Your task to perform on an android device: turn on translation in the chrome app Image 0: 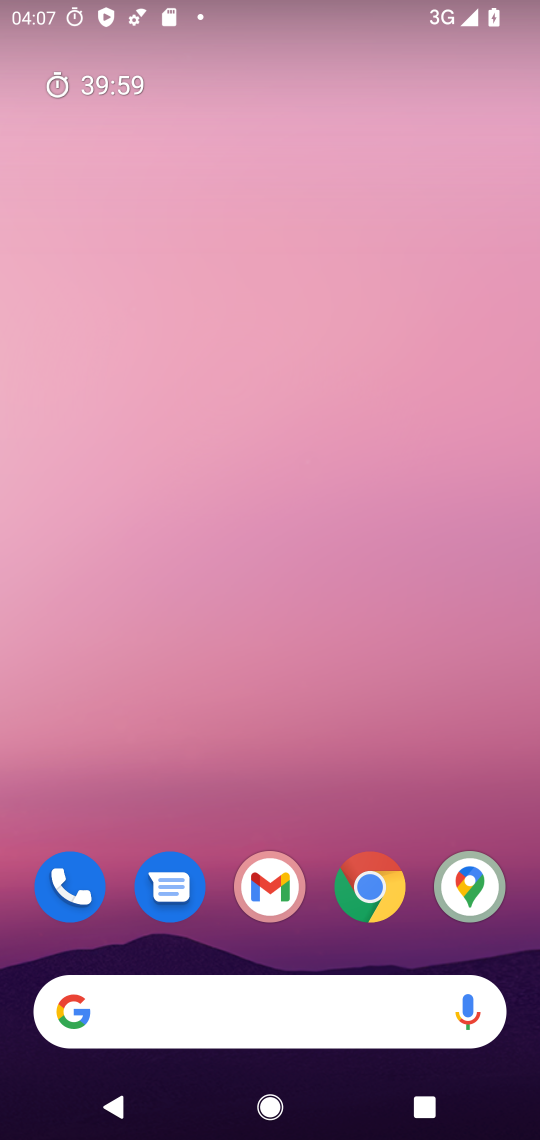
Step 0: press home button
Your task to perform on an android device: turn on translation in the chrome app Image 1: 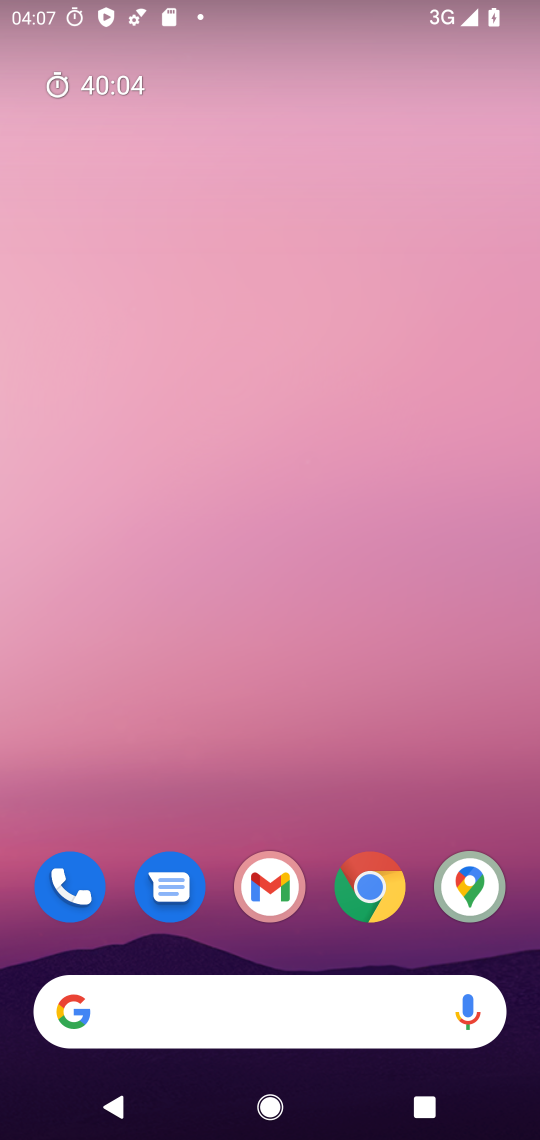
Step 1: drag from (426, 758) to (415, 316)
Your task to perform on an android device: turn on translation in the chrome app Image 2: 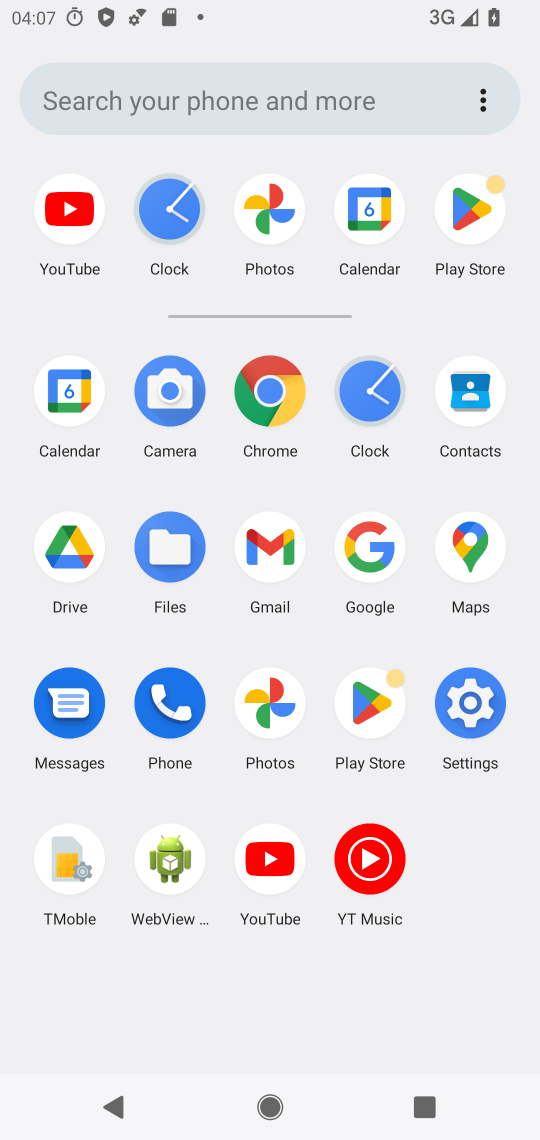
Step 2: click (272, 410)
Your task to perform on an android device: turn on translation in the chrome app Image 3: 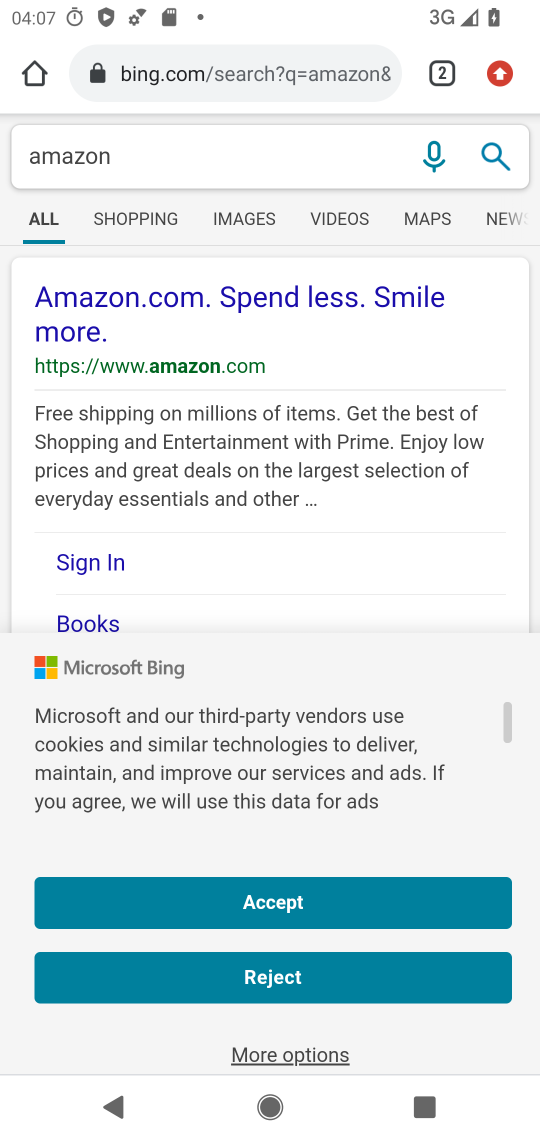
Step 3: click (499, 69)
Your task to perform on an android device: turn on translation in the chrome app Image 4: 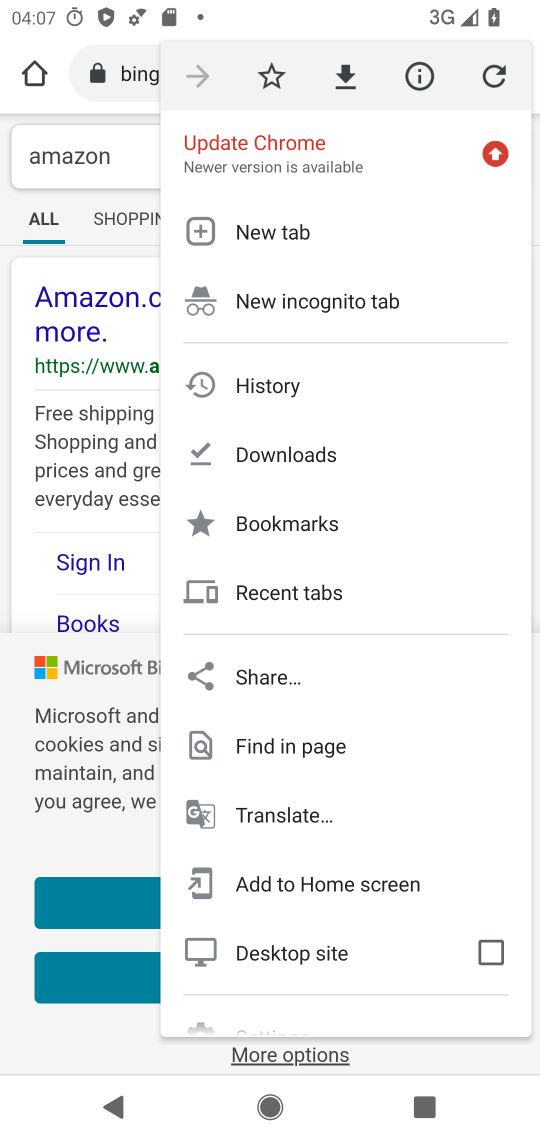
Step 4: drag from (428, 619) to (428, 507)
Your task to perform on an android device: turn on translation in the chrome app Image 5: 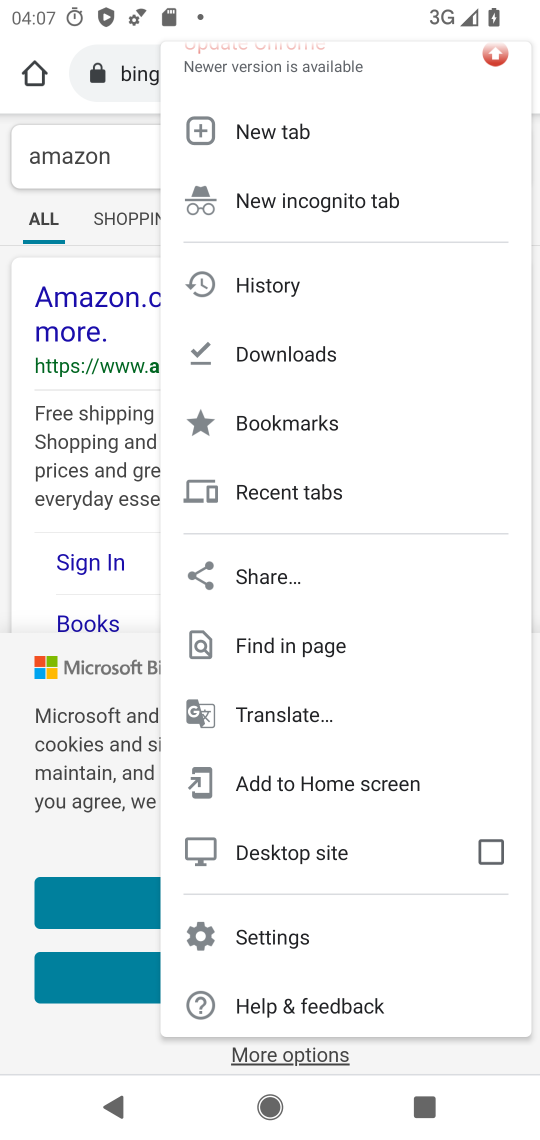
Step 5: click (316, 940)
Your task to perform on an android device: turn on translation in the chrome app Image 6: 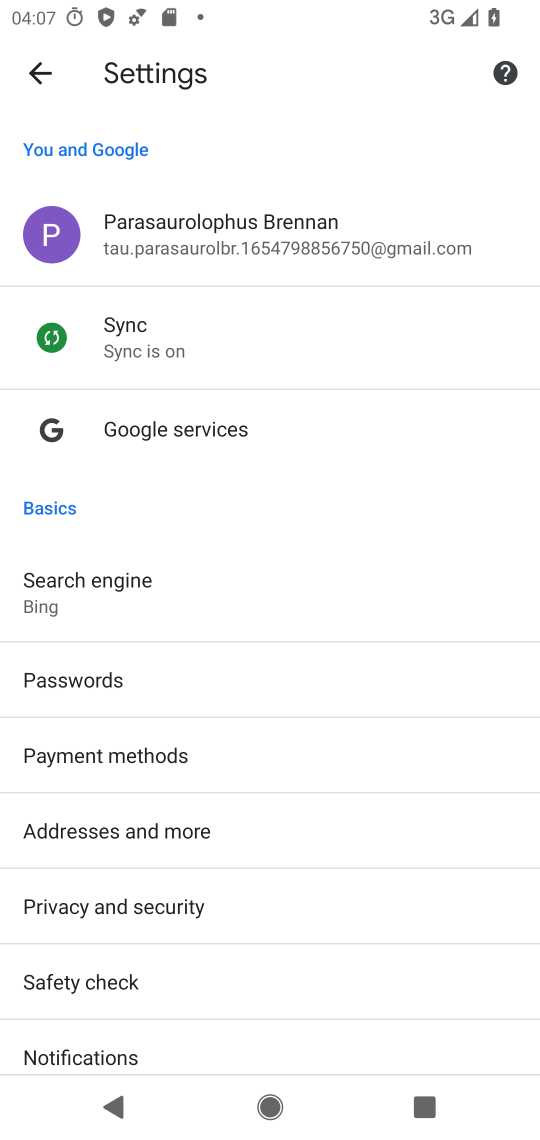
Step 6: drag from (316, 941) to (372, 711)
Your task to perform on an android device: turn on translation in the chrome app Image 7: 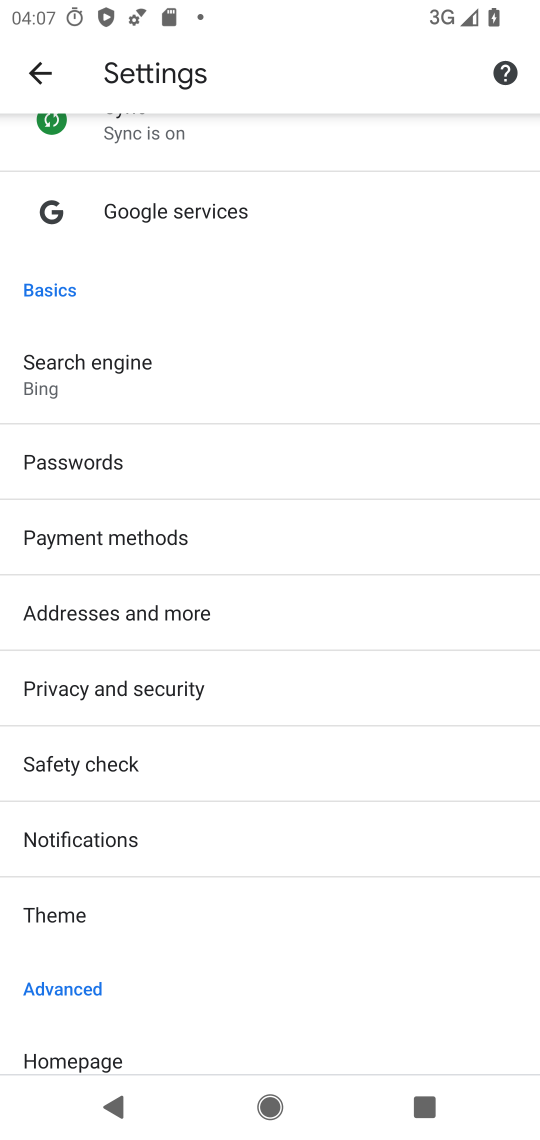
Step 7: drag from (360, 937) to (394, 741)
Your task to perform on an android device: turn on translation in the chrome app Image 8: 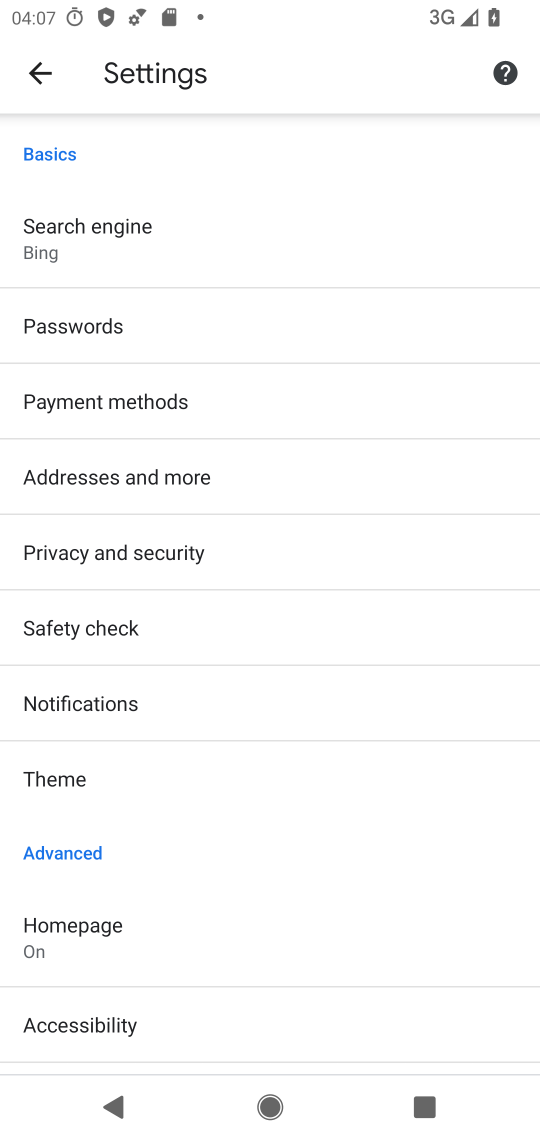
Step 8: drag from (331, 927) to (346, 732)
Your task to perform on an android device: turn on translation in the chrome app Image 9: 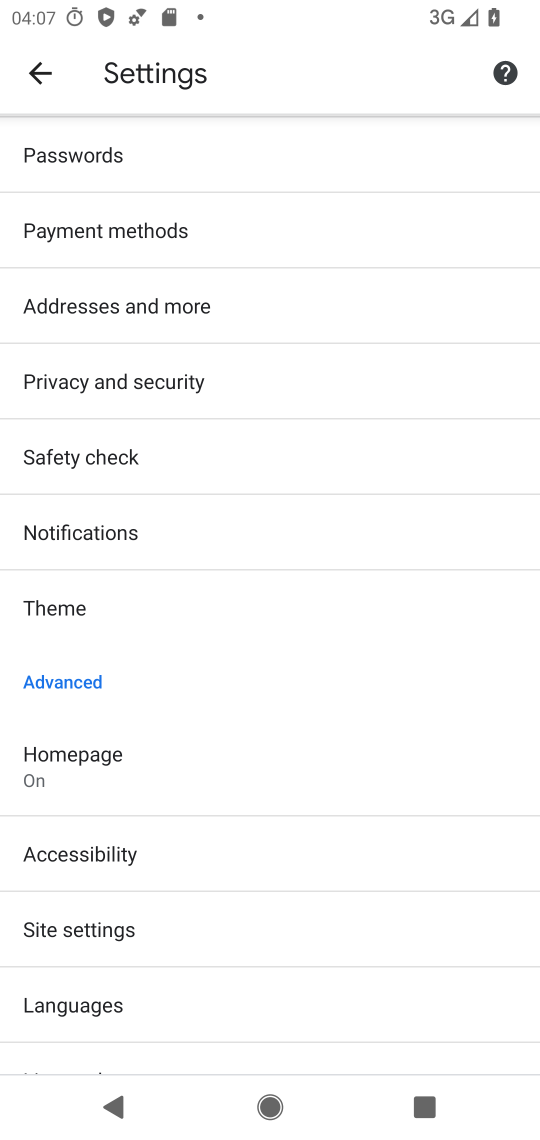
Step 9: drag from (328, 959) to (337, 722)
Your task to perform on an android device: turn on translation in the chrome app Image 10: 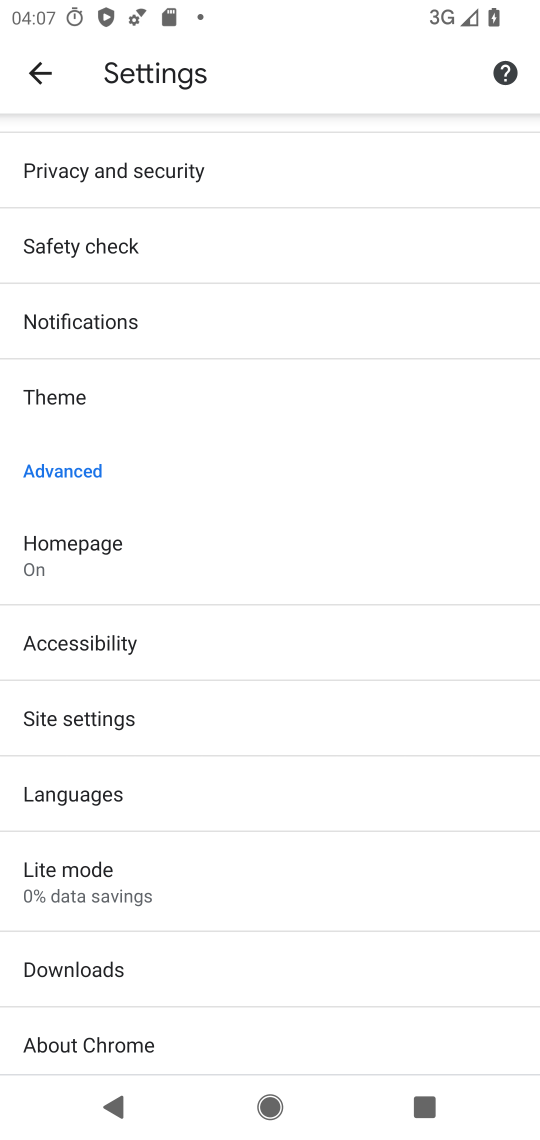
Step 10: click (340, 791)
Your task to perform on an android device: turn on translation in the chrome app Image 11: 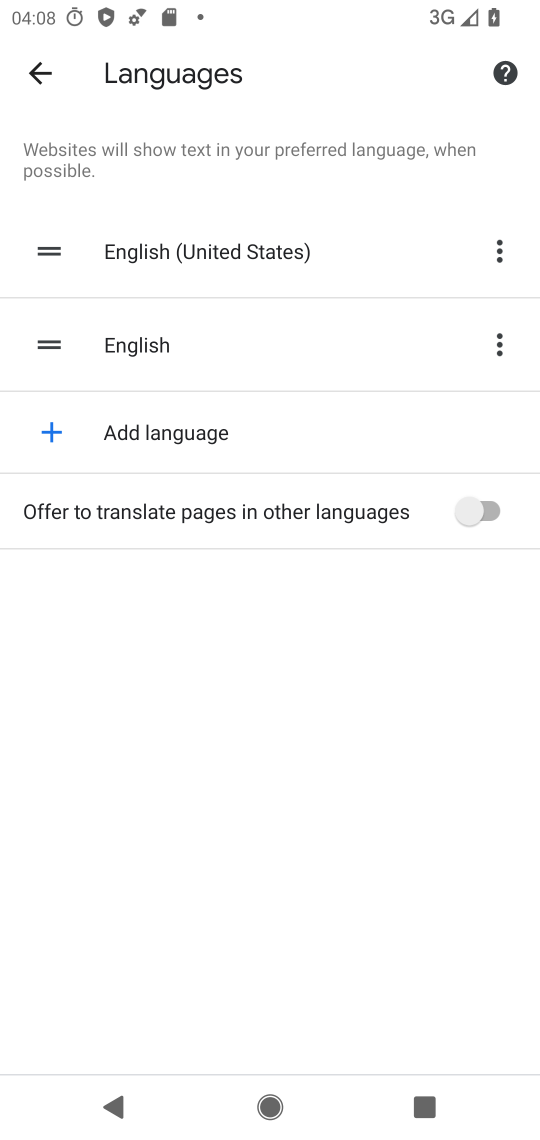
Step 11: click (466, 509)
Your task to perform on an android device: turn on translation in the chrome app Image 12: 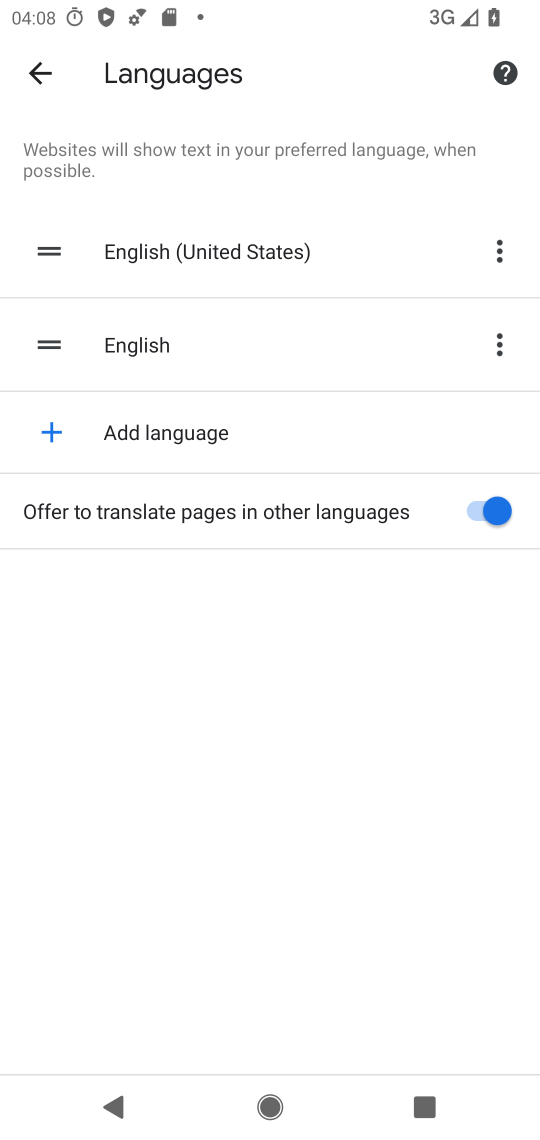
Step 12: task complete